Your task to perform on an android device: Search for "rayovac triple a" on costco.com, select the first entry, add it to the cart, then select checkout. Image 0: 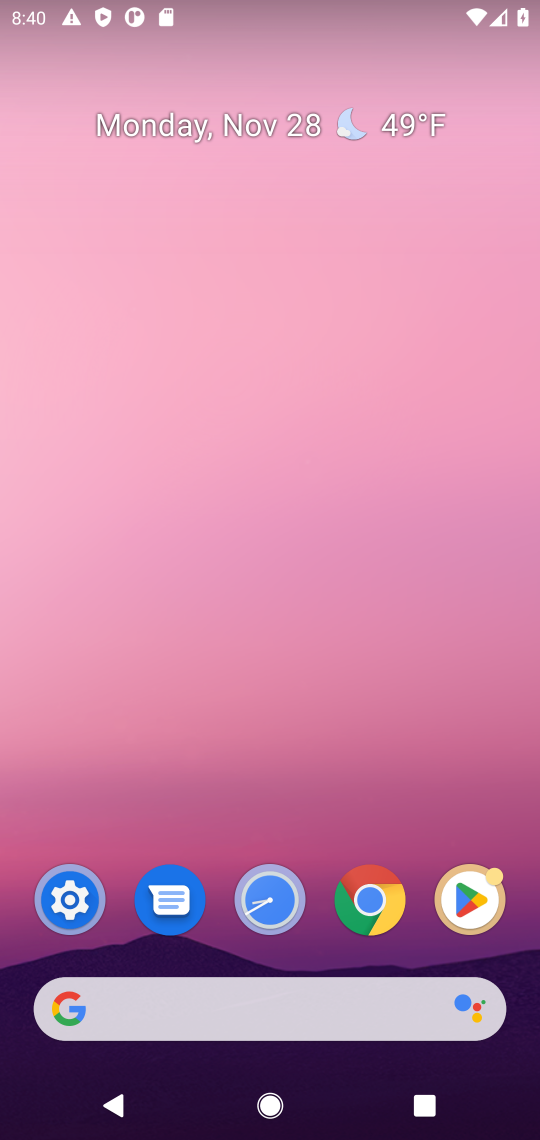
Step 0: click (320, 993)
Your task to perform on an android device: Search for "rayovac triple a" on costco.com, select the first entry, add it to the cart, then select checkout. Image 1: 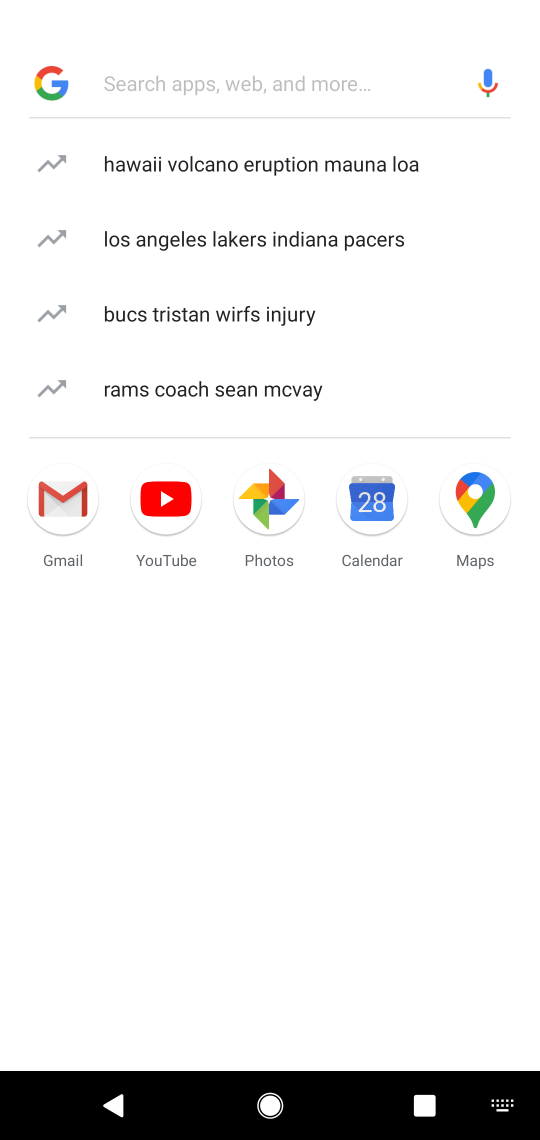
Step 1: press home button
Your task to perform on an android device: Search for "rayovac triple a" on costco.com, select the first entry, add it to the cart, then select checkout. Image 2: 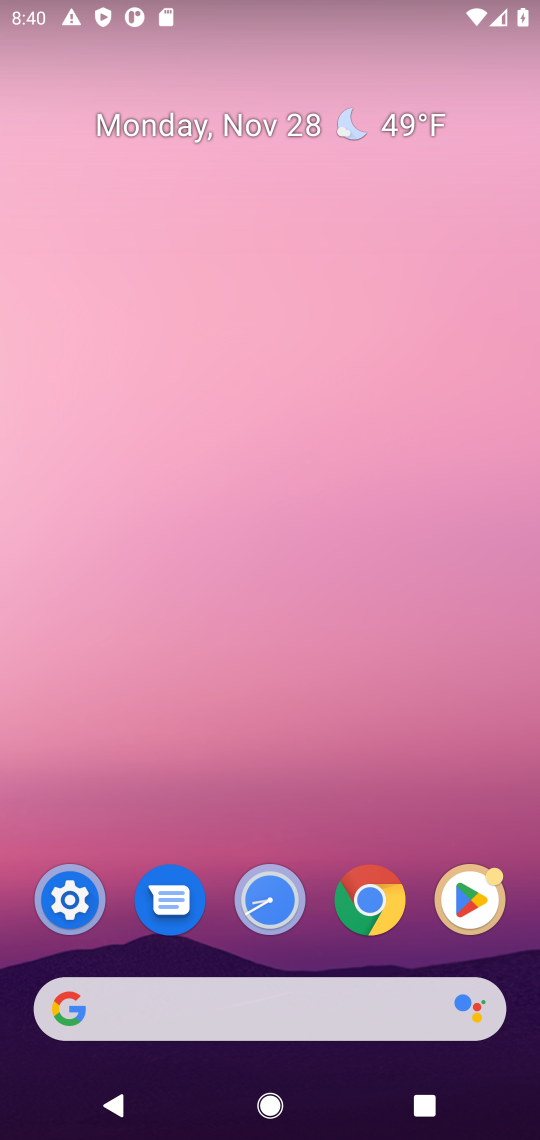
Step 2: click (217, 1002)
Your task to perform on an android device: Search for "rayovac triple a" on costco.com, select the first entry, add it to the cart, then select checkout. Image 3: 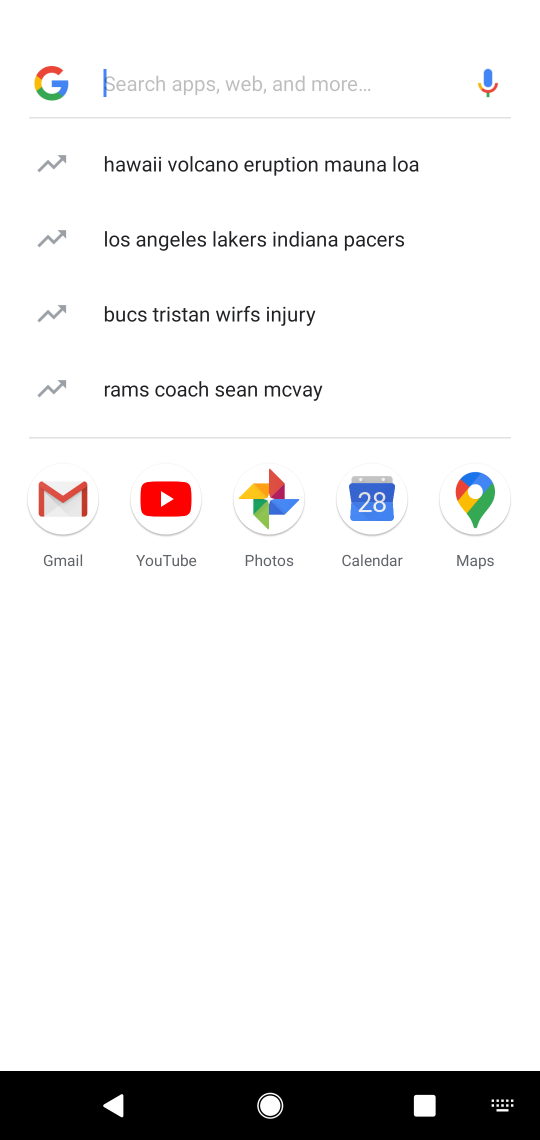
Step 3: task complete